Your task to perform on an android device: Show me the alarms in the clock app Image 0: 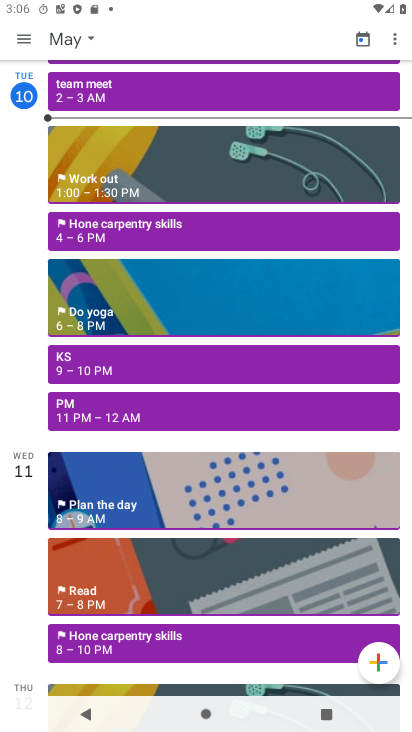
Step 0: press home button
Your task to perform on an android device: Show me the alarms in the clock app Image 1: 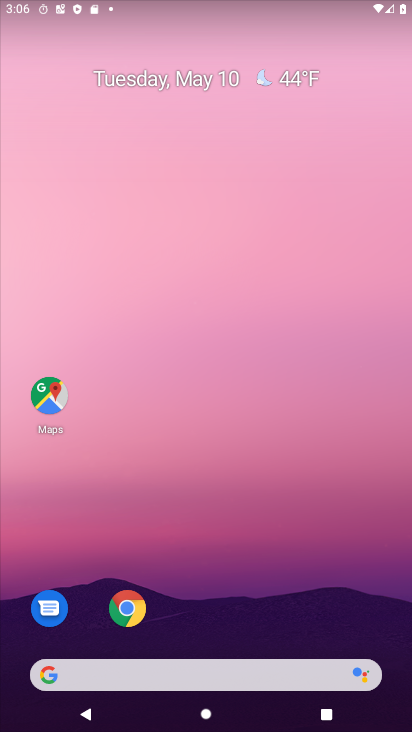
Step 1: drag from (348, 580) to (381, 3)
Your task to perform on an android device: Show me the alarms in the clock app Image 2: 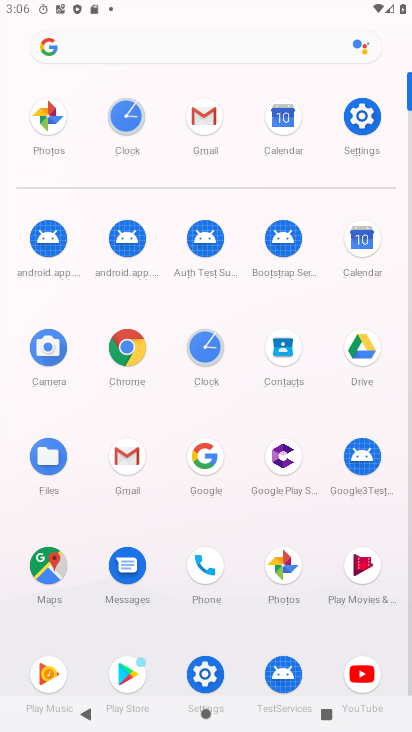
Step 2: click (116, 122)
Your task to perform on an android device: Show me the alarms in the clock app Image 3: 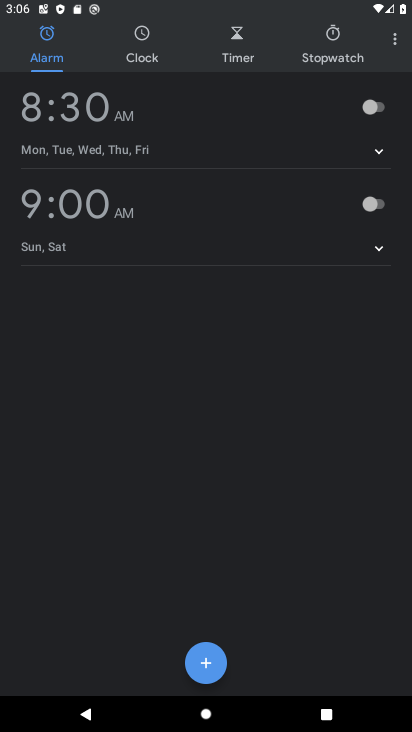
Step 3: task complete